Your task to perform on an android device: turn notification dots on Image 0: 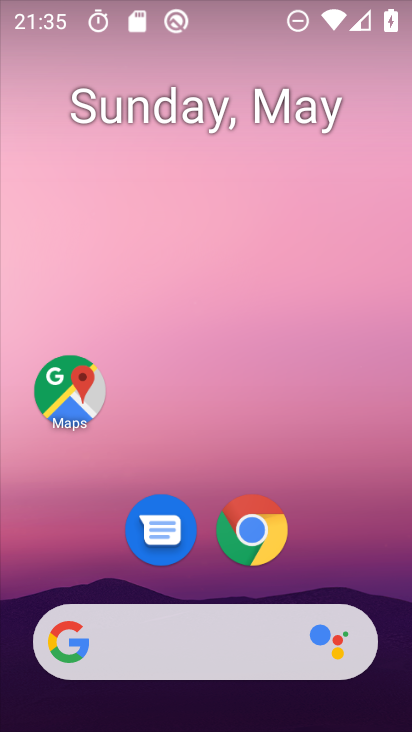
Step 0: drag from (216, 606) to (226, 108)
Your task to perform on an android device: turn notification dots on Image 1: 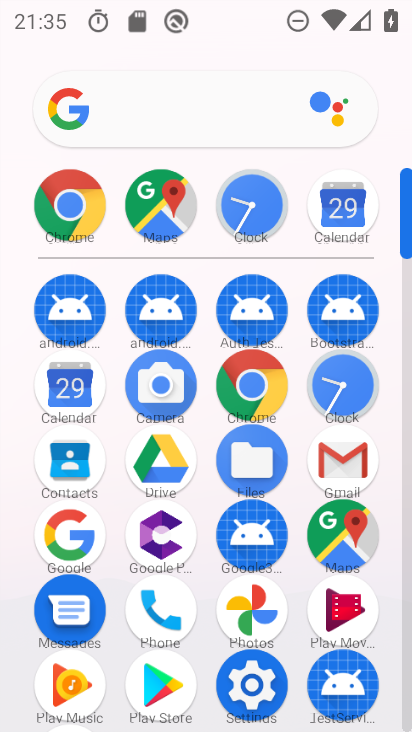
Step 1: click (238, 674)
Your task to perform on an android device: turn notification dots on Image 2: 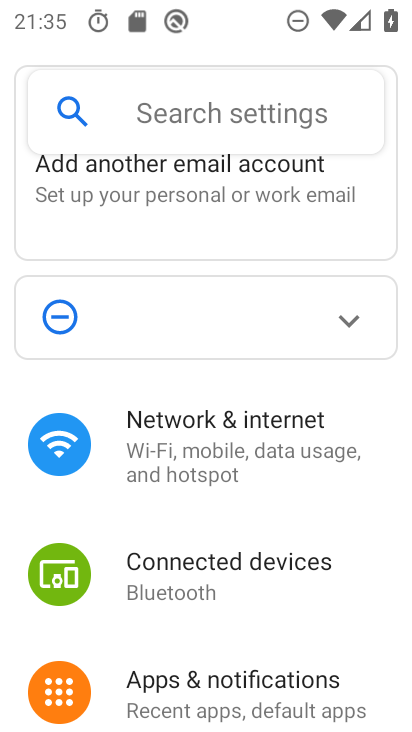
Step 2: click (228, 103)
Your task to perform on an android device: turn notification dots on Image 3: 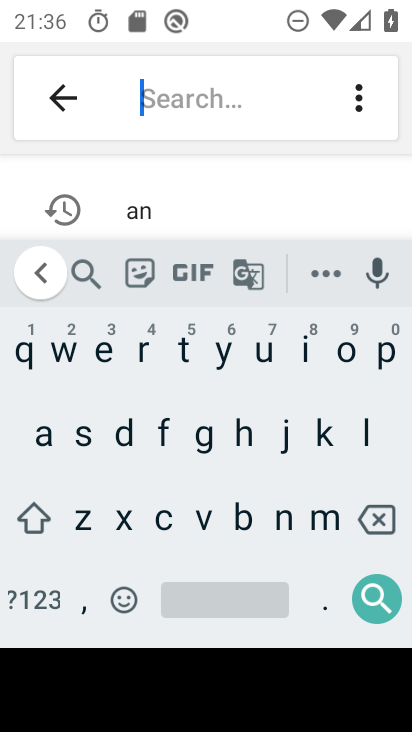
Step 3: click (124, 439)
Your task to perform on an android device: turn notification dots on Image 4: 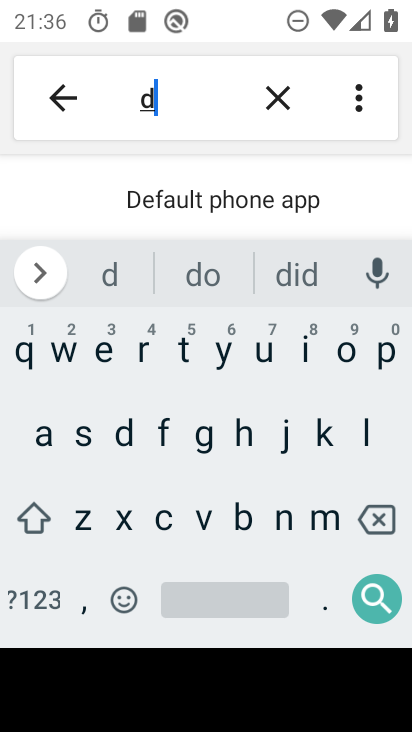
Step 4: click (340, 361)
Your task to perform on an android device: turn notification dots on Image 5: 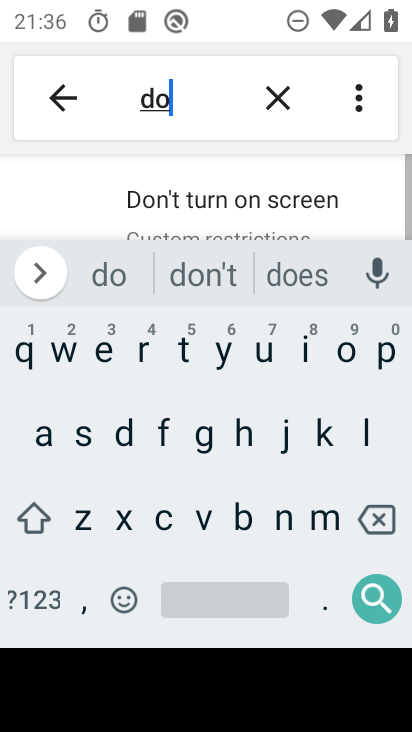
Step 5: click (181, 351)
Your task to perform on an android device: turn notification dots on Image 6: 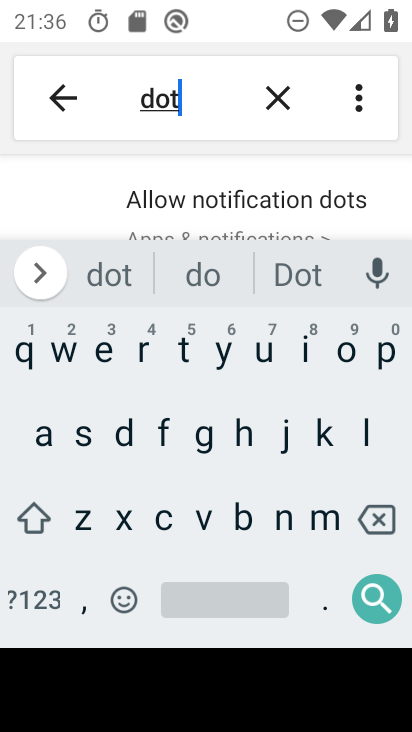
Step 6: click (195, 183)
Your task to perform on an android device: turn notification dots on Image 7: 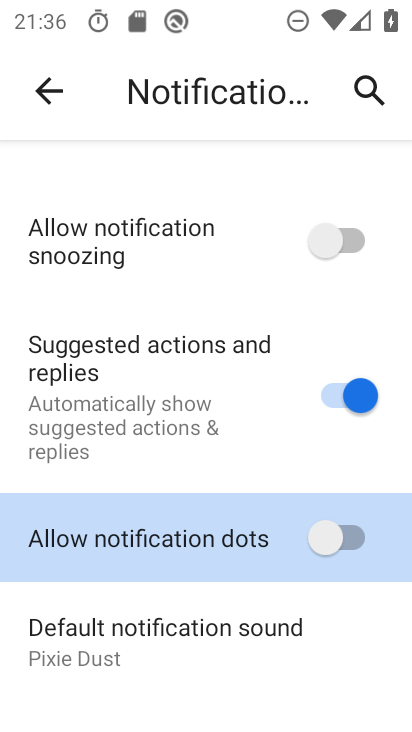
Step 7: click (245, 543)
Your task to perform on an android device: turn notification dots on Image 8: 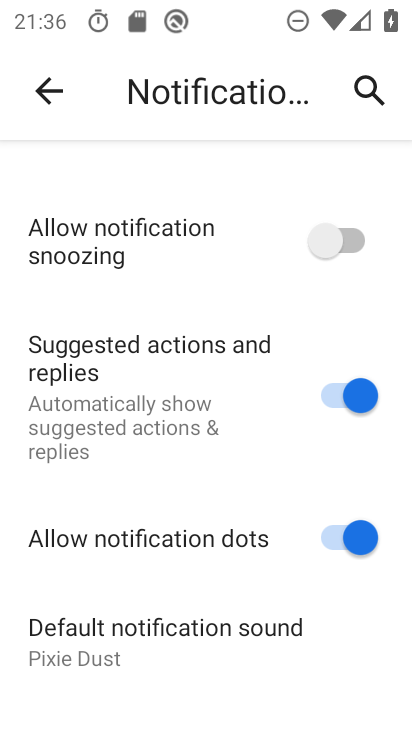
Step 8: task complete